Your task to perform on an android device: Open maps Image 0: 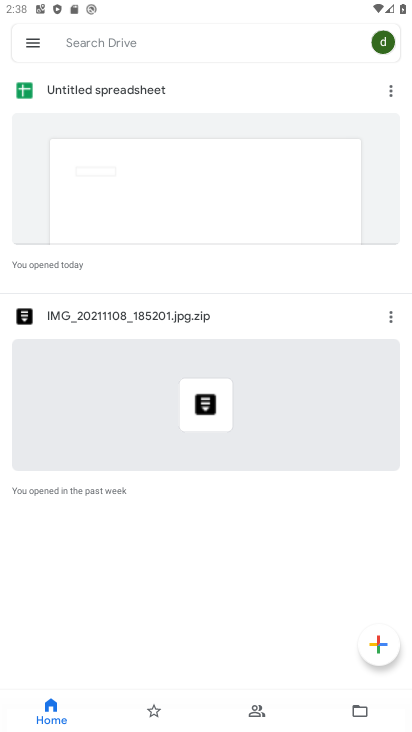
Step 0: press home button
Your task to perform on an android device: Open maps Image 1: 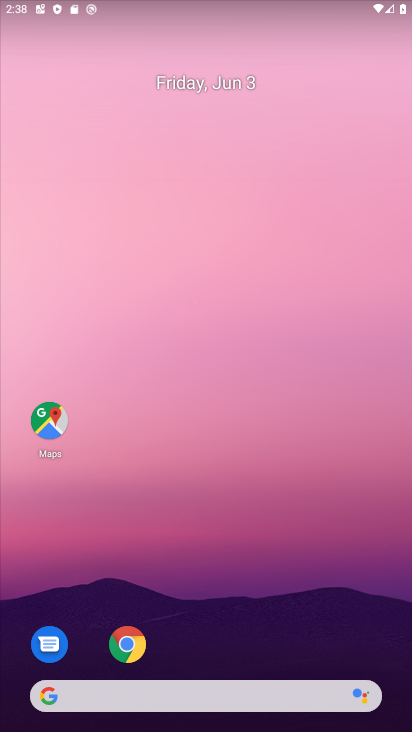
Step 1: click (35, 436)
Your task to perform on an android device: Open maps Image 2: 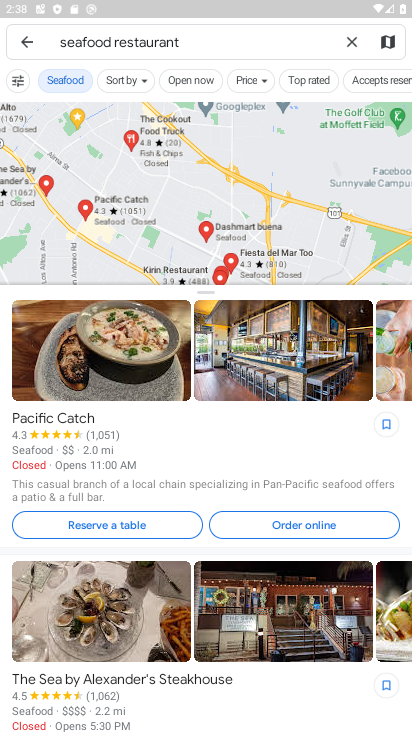
Step 2: task complete